Your task to perform on an android device: Open Chrome and go to settings Image 0: 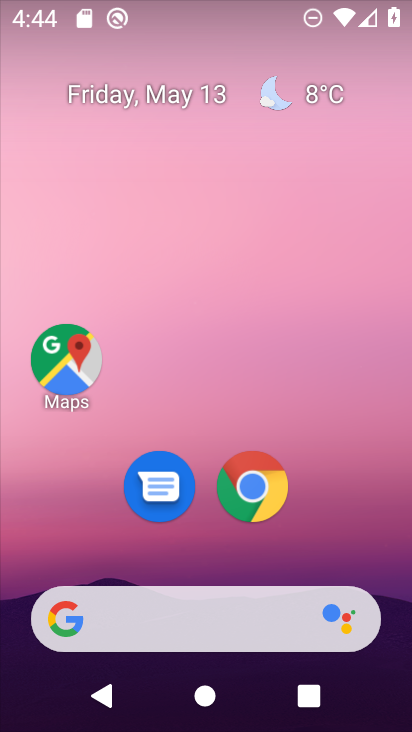
Step 0: click (260, 520)
Your task to perform on an android device: Open Chrome and go to settings Image 1: 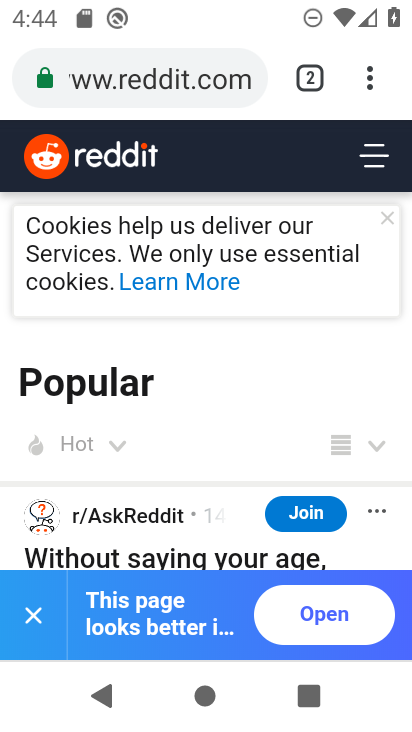
Step 1: click (382, 80)
Your task to perform on an android device: Open Chrome and go to settings Image 2: 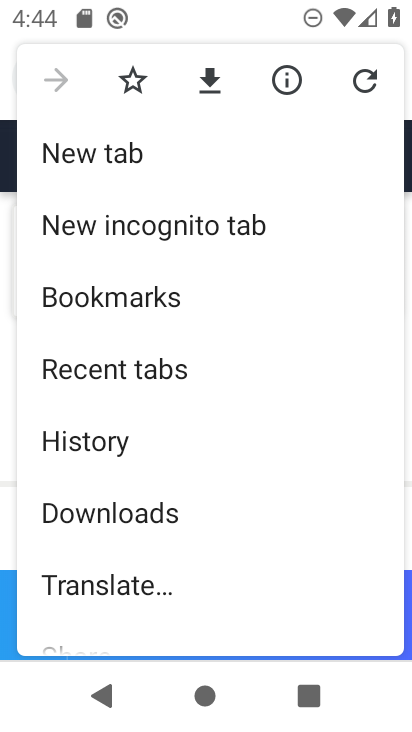
Step 2: drag from (224, 494) to (223, 343)
Your task to perform on an android device: Open Chrome and go to settings Image 3: 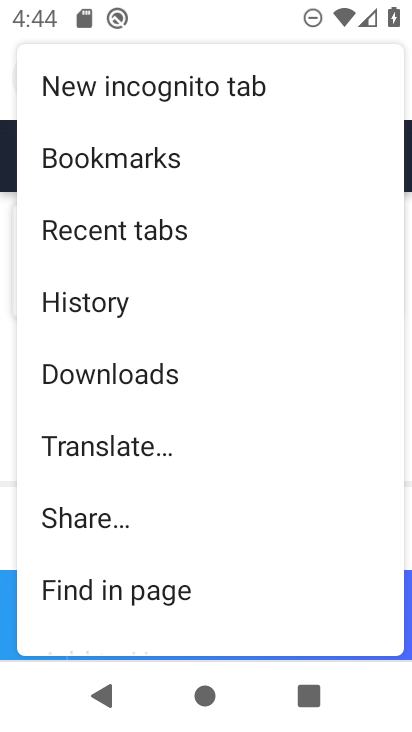
Step 3: drag from (206, 540) to (203, 404)
Your task to perform on an android device: Open Chrome and go to settings Image 4: 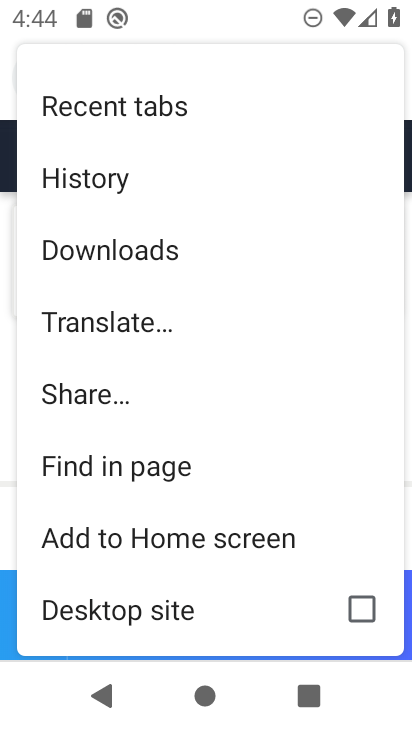
Step 4: drag from (164, 507) to (149, 215)
Your task to perform on an android device: Open Chrome and go to settings Image 5: 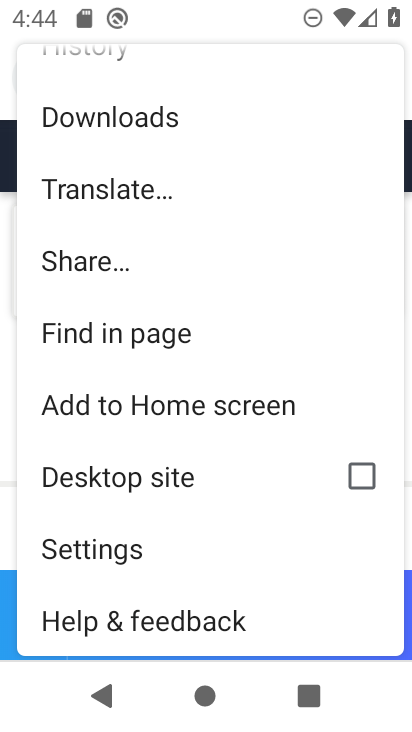
Step 5: click (91, 527)
Your task to perform on an android device: Open Chrome and go to settings Image 6: 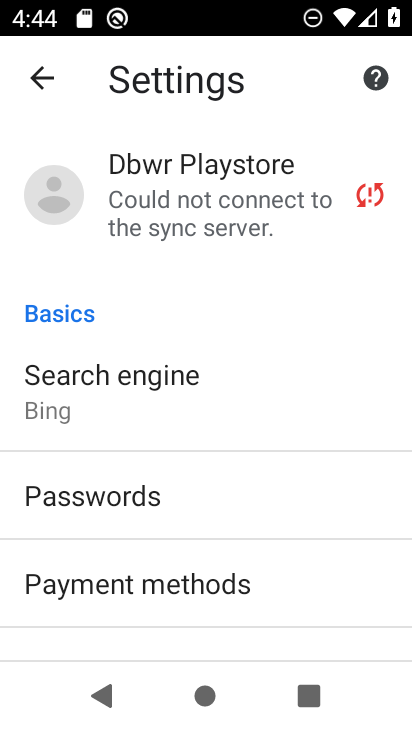
Step 6: task complete